Your task to perform on an android device: toggle data saver in the chrome app Image 0: 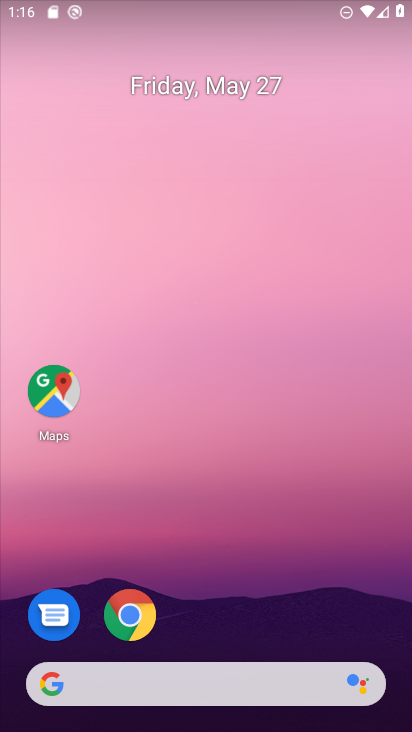
Step 0: drag from (299, 520) to (272, 205)
Your task to perform on an android device: toggle data saver in the chrome app Image 1: 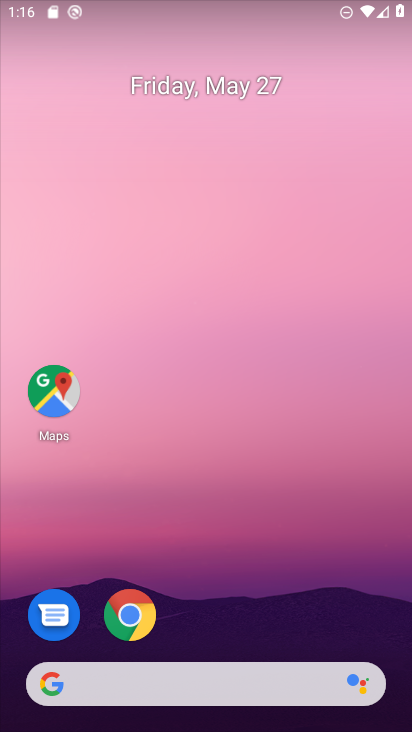
Step 1: drag from (282, 584) to (325, 149)
Your task to perform on an android device: toggle data saver in the chrome app Image 2: 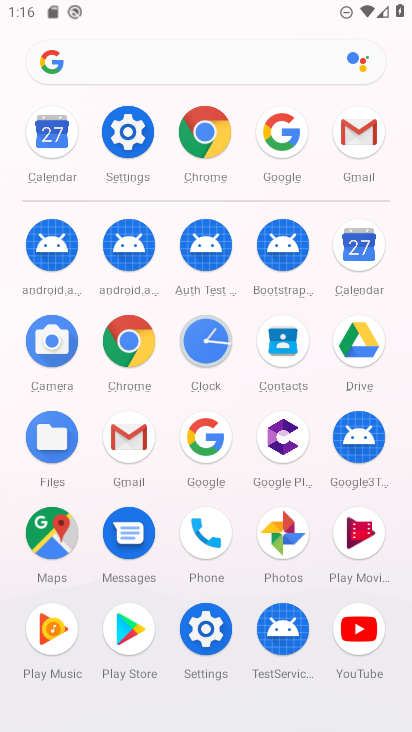
Step 2: click (144, 356)
Your task to perform on an android device: toggle data saver in the chrome app Image 3: 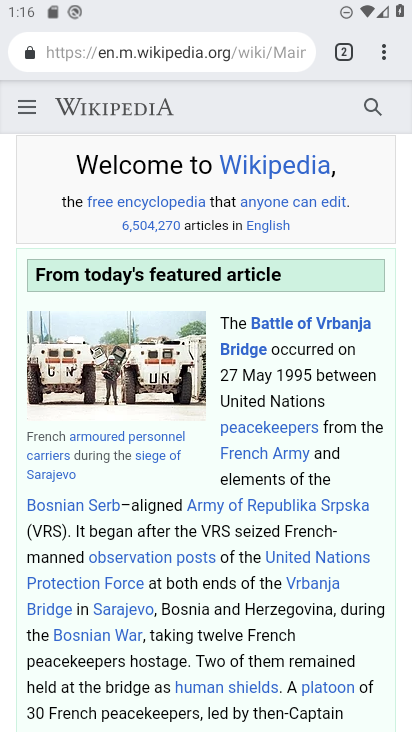
Step 3: click (385, 57)
Your task to perform on an android device: toggle data saver in the chrome app Image 4: 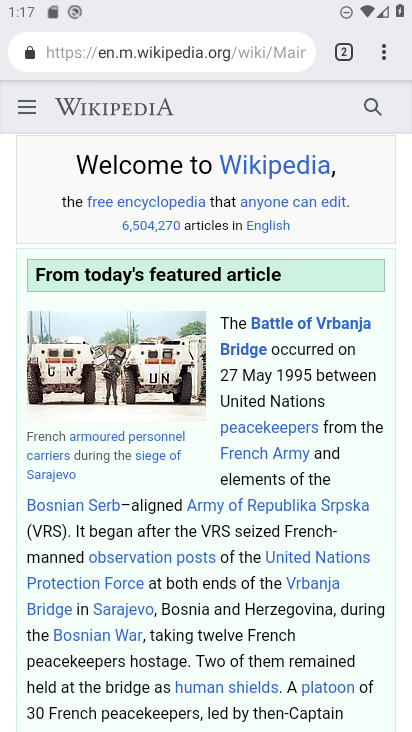
Step 4: click (383, 56)
Your task to perform on an android device: toggle data saver in the chrome app Image 5: 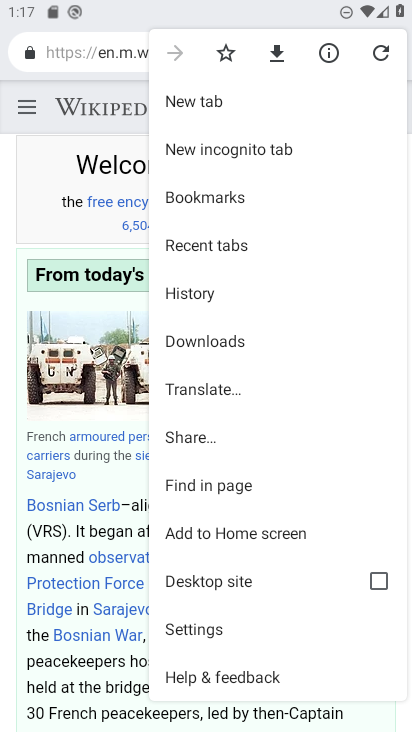
Step 5: drag from (310, 454) to (322, 187)
Your task to perform on an android device: toggle data saver in the chrome app Image 6: 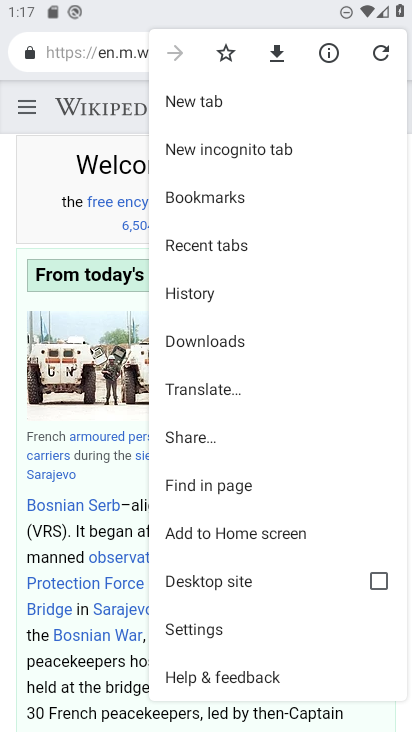
Step 6: click (232, 630)
Your task to perform on an android device: toggle data saver in the chrome app Image 7: 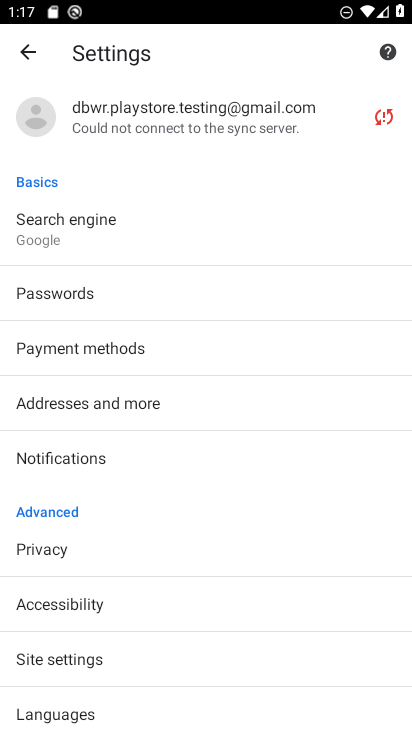
Step 7: drag from (131, 626) to (107, 401)
Your task to perform on an android device: toggle data saver in the chrome app Image 8: 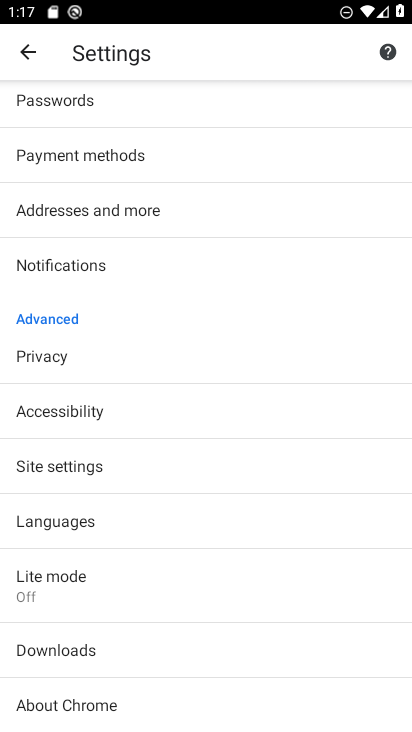
Step 8: click (99, 608)
Your task to perform on an android device: toggle data saver in the chrome app Image 9: 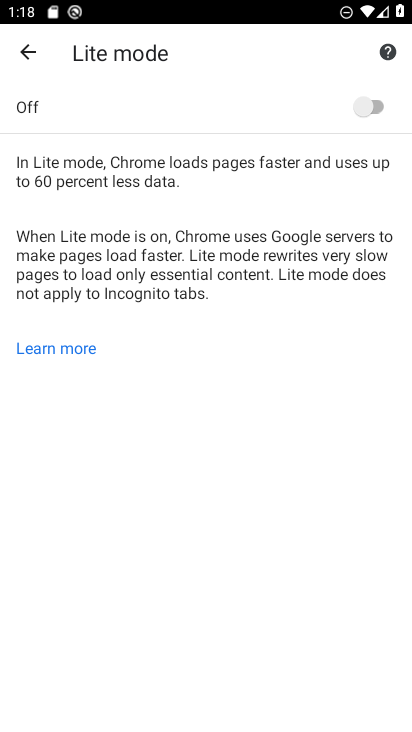
Step 9: click (346, 113)
Your task to perform on an android device: toggle data saver in the chrome app Image 10: 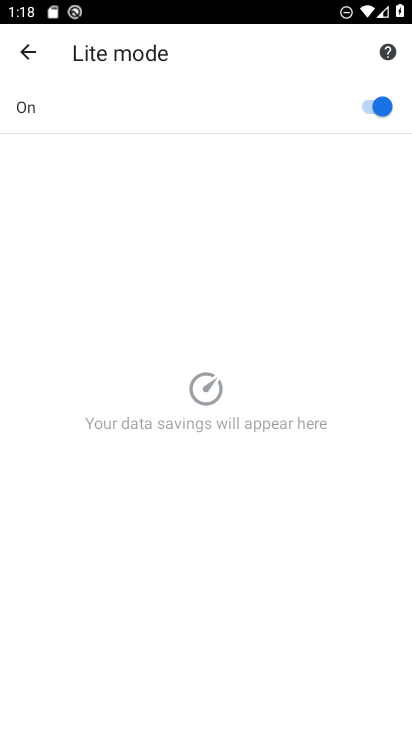
Step 10: task complete